Your task to perform on an android device: turn off javascript in the chrome app Image 0: 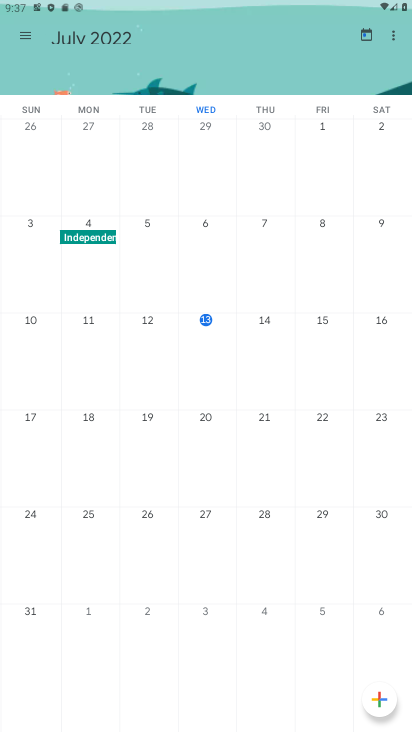
Step 0: press home button
Your task to perform on an android device: turn off javascript in the chrome app Image 1: 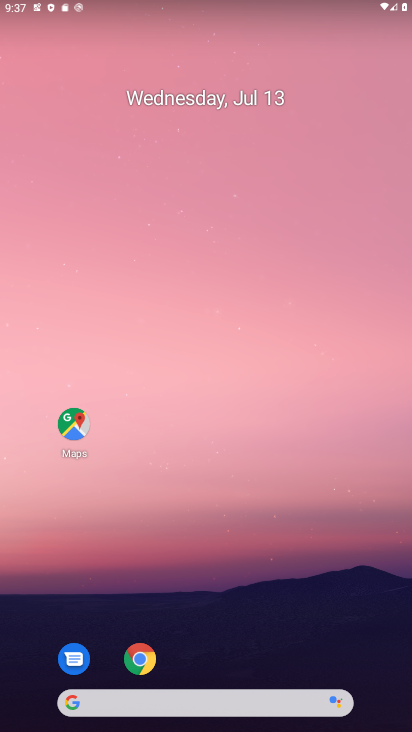
Step 1: click (133, 663)
Your task to perform on an android device: turn off javascript in the chrome app Image 2: 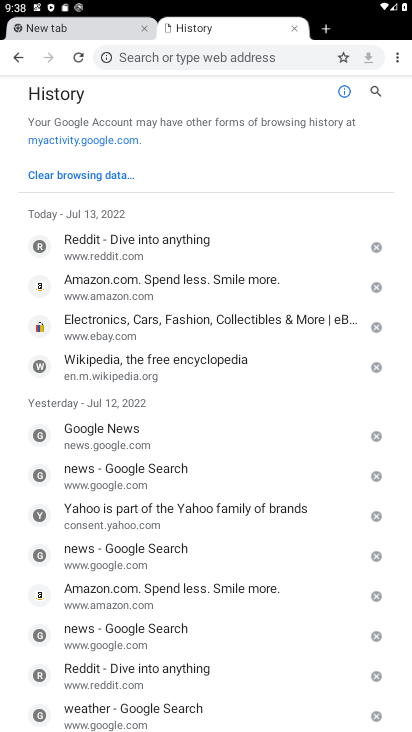
Step 2: drag from (392, 59) to (295, 259)
Your task to perform on an android device: turn off javascript in the chrome app Image 3: 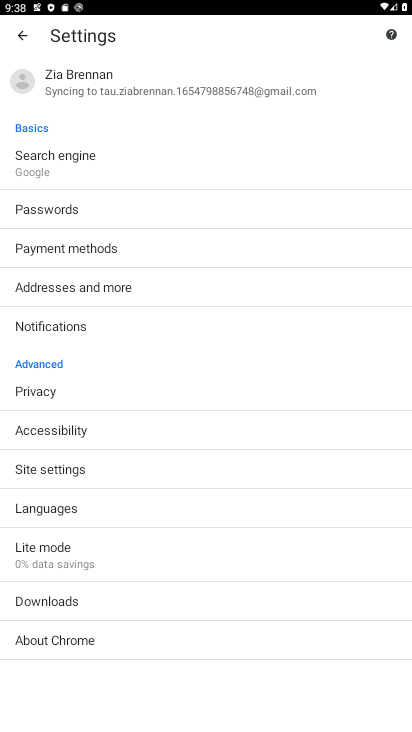
Step 3: click (85, 472)
Your task to perform on an android device: turn off javascript in the chrome app Image 4: 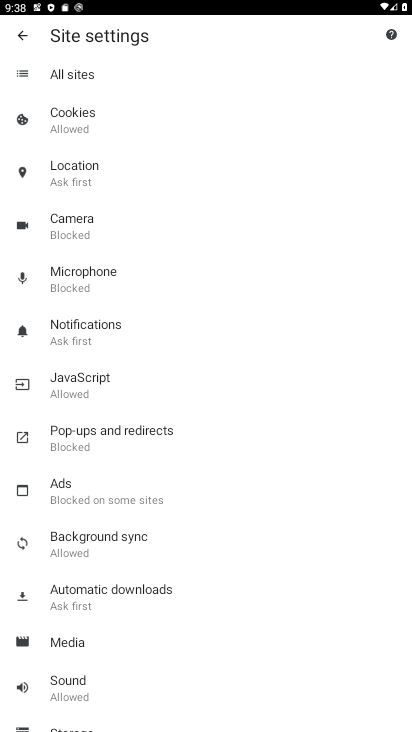
Step 4: click (78, 379)
Your task to perform on an android device: turn off javascript in the chrome app Image 5: 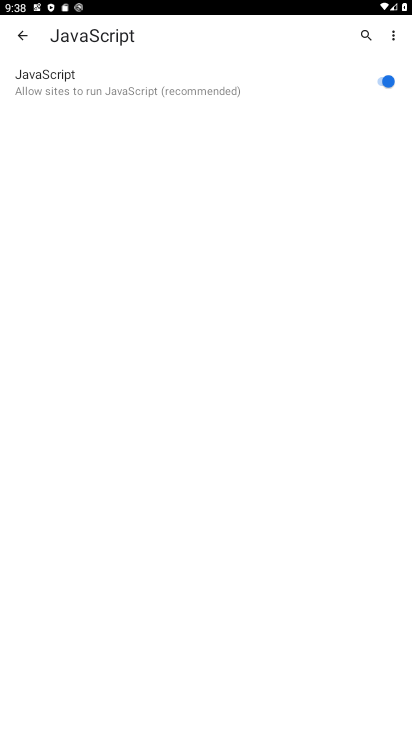
Step 5: click (379, 85)
Your task to perform on an android device: turn off javascript in the chrome app Image 6: 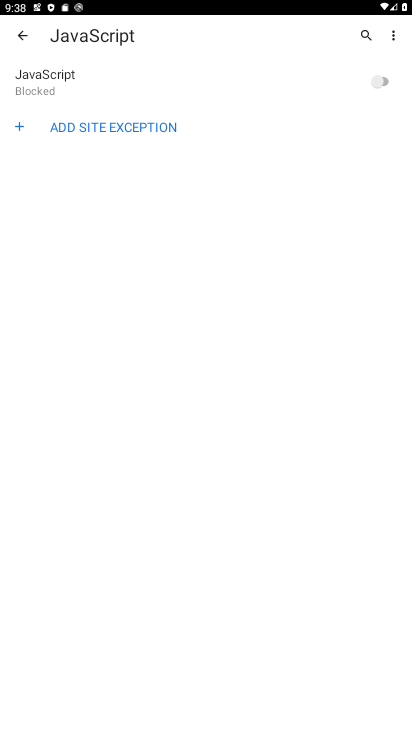
Step 6: task complete